Your task to perform on an android device: open app "Mercado Libre" (install if not already installed) Image 0: 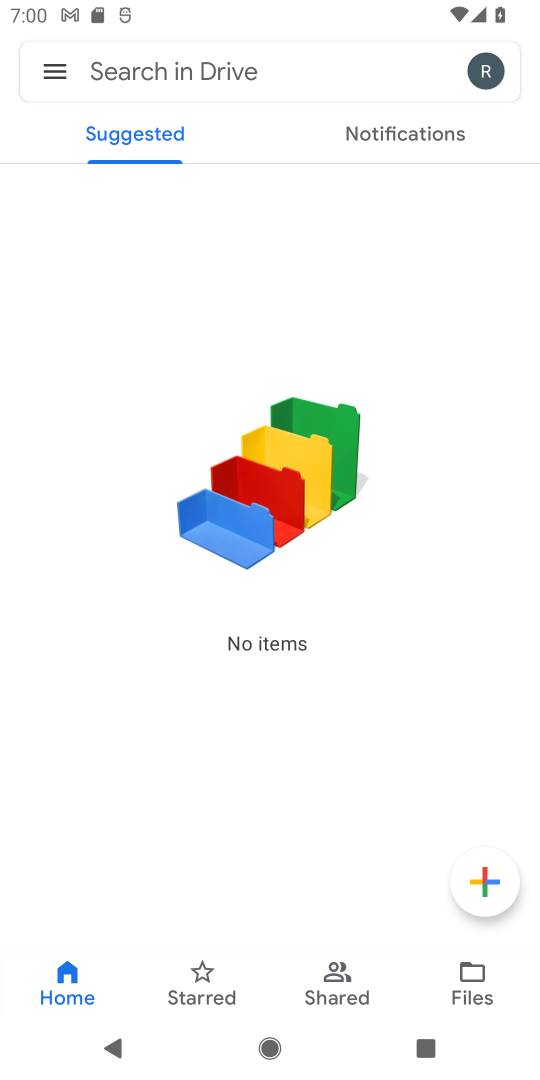
Step 0: press home button
Your task to perform on an android device: open app "Mercado Libre" (install if not already installed) Image 1: 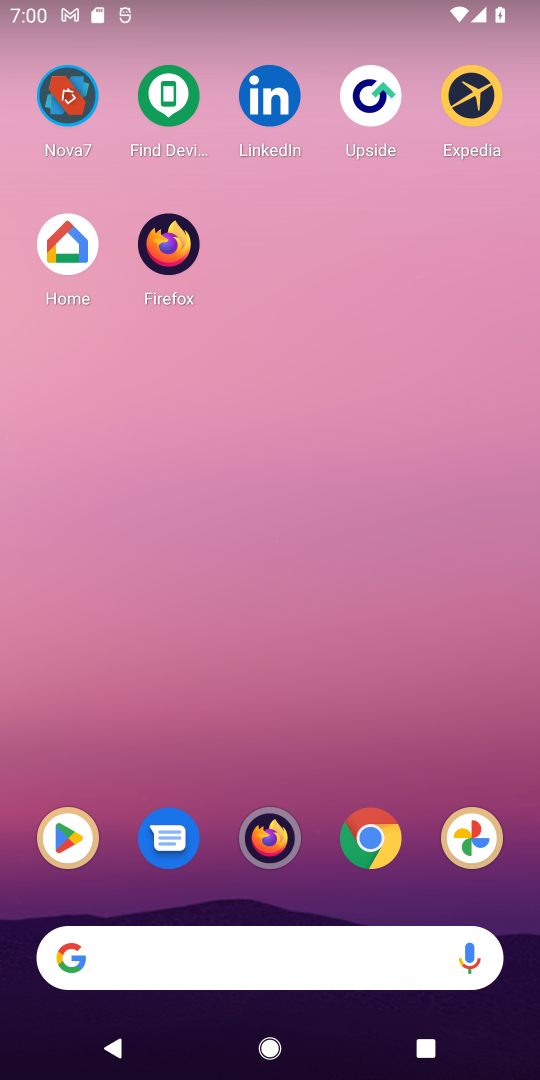
Step 1: click (70, 838)
Your task to perform on an android device: open app "Mercado Libre" (install if not already installed) Image 2: 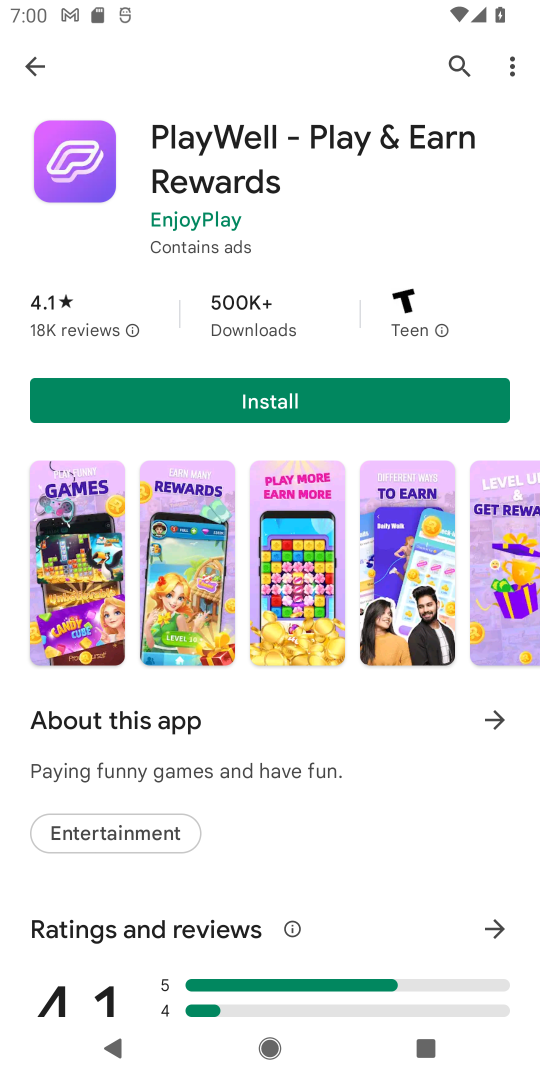
Step 2: click (464, 49)
Your task to perform on an android device: open app "Mercado Libre" (install if not already installed) Image 3: 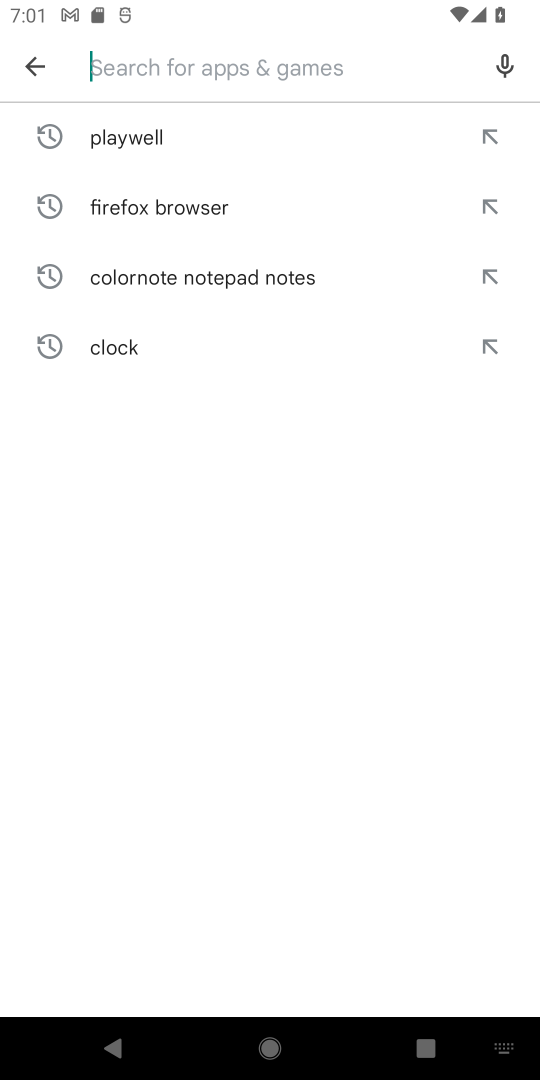
Step 3: type "mercado libre"
Your task to perform on an android device: open app "Mercado Libre" (install if not already installed) Image 4: 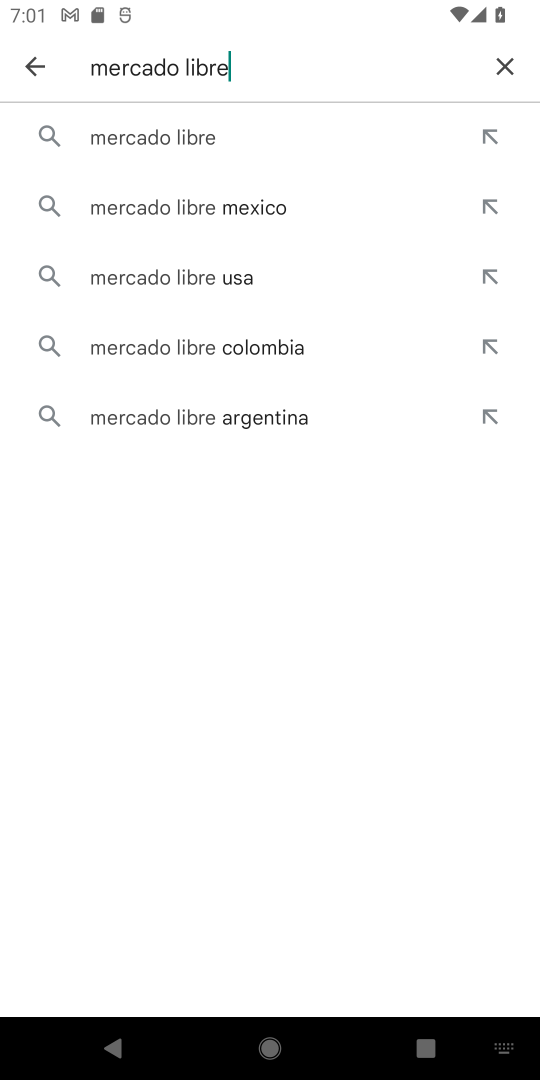
Step 4: click (204, 136)
Your task to perform on an android device: open app "Mercado Libre" (install if not already installed) Image 5: 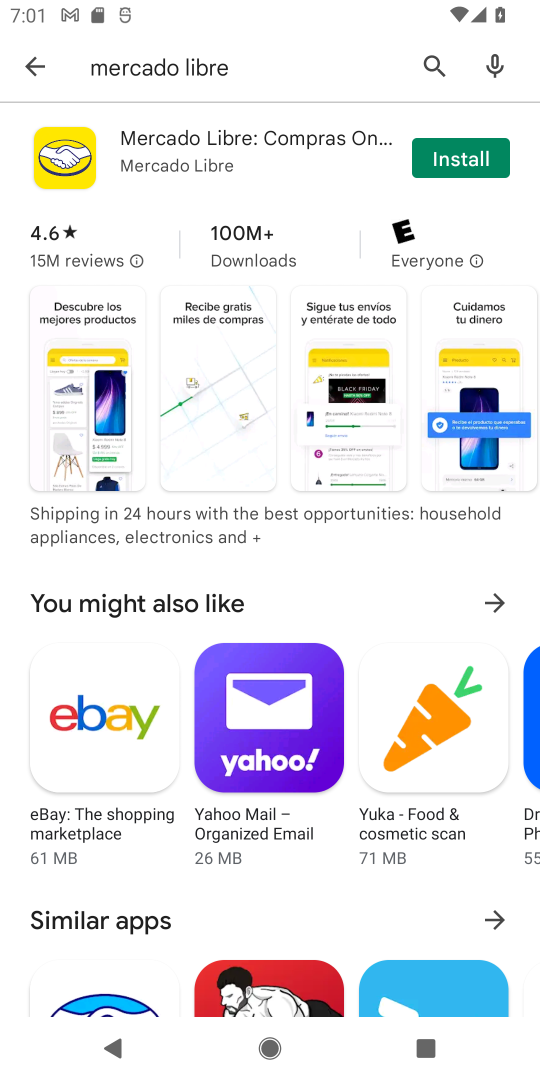
Step 5: click (158, 131)
Your task to perform on an android device: open app "Mercado Libre" (install if not already installed) Image 6: 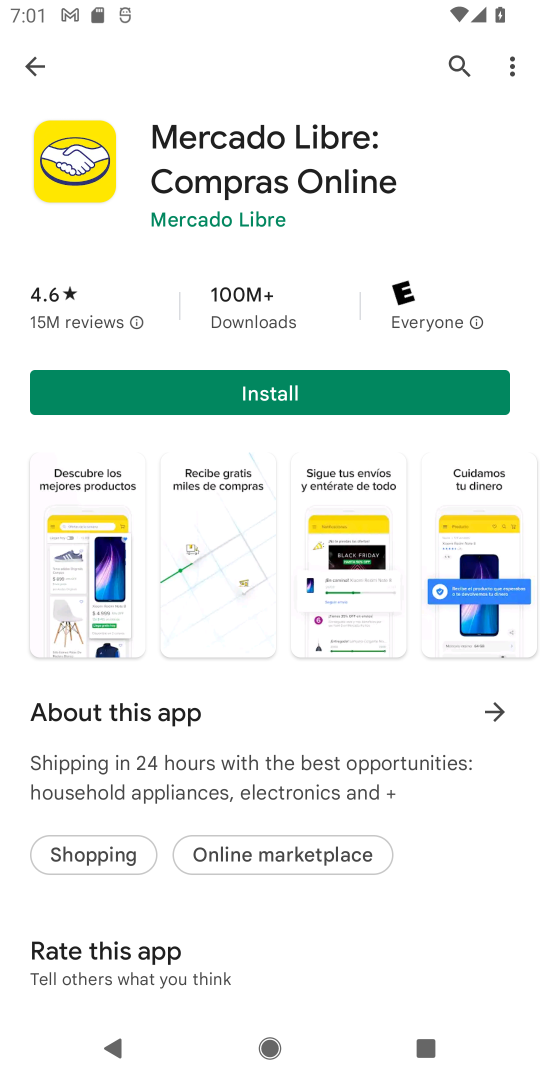
Step 6: click (322, 402)
Your task to perform on an android device: open app "Mercado Libre" (install if not already installed) Image 7: 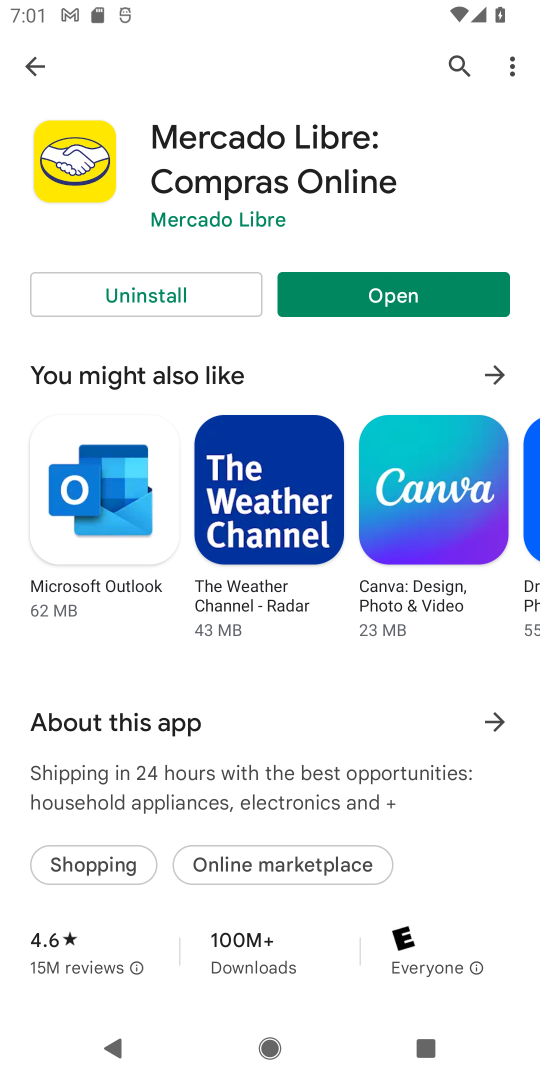
Step 7: click (427, 283)
Your task to perform on an android device: open app "Mercado Libre" (install if not already installed) Image 8: 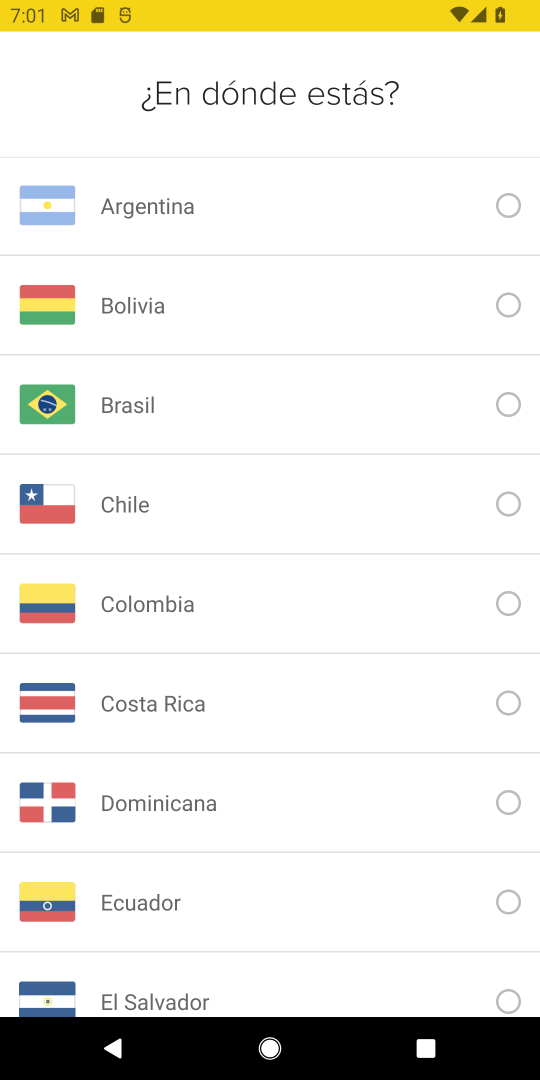
Step 8: task complete